Your task to perform on an android device: Go to battery settings Image 0: 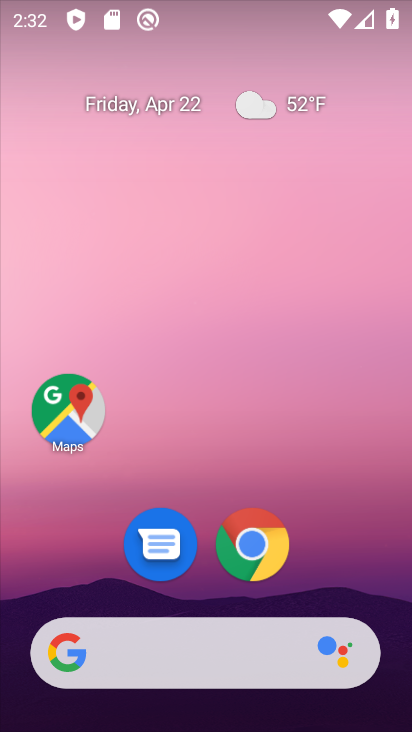
Step 0: drag from (213, 609) to (180, 31)
Your task to perform on an android device: Go to battery settings Image 1: 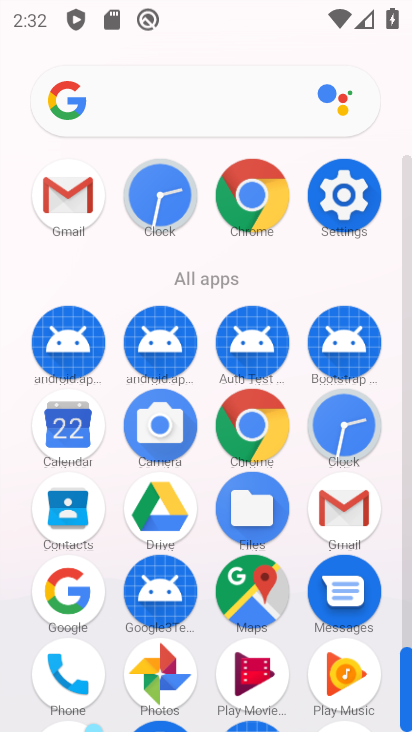
Step 1: click (339, 212)
Your task to perform on an android device: Go to battery settings Image 2: 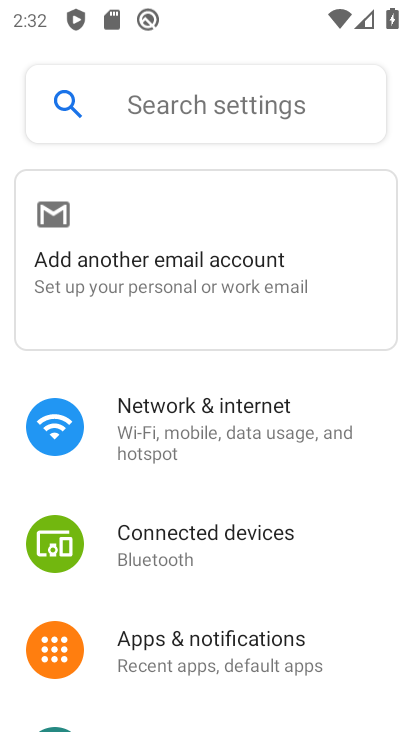
Step 2: drag from (108, 583) to (75, 101)
Your task to perform on an android device: Go to battery settings Image 3: 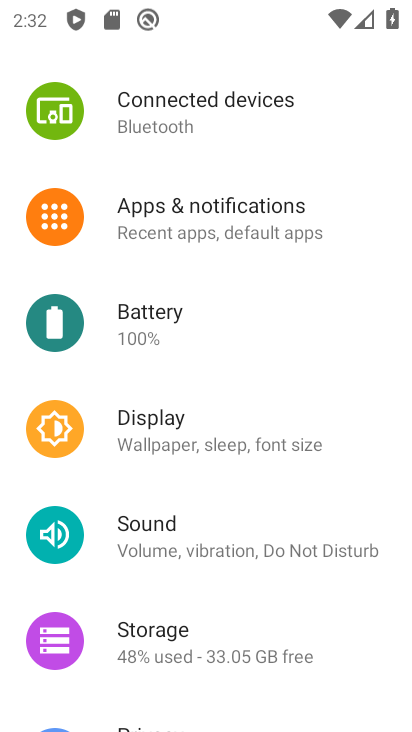
Step 3: click (182, 328)
Your task to perform on an android device: Go to battery settings Image 4: 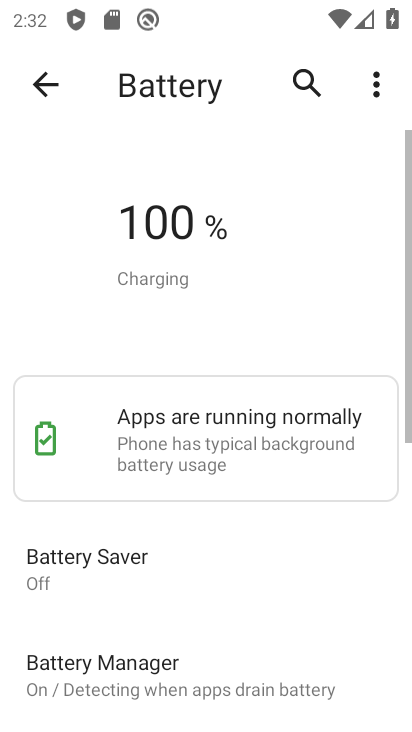
Step 4: task complete